Your task to perform on an android device: What's on my calendar today? Image 0: 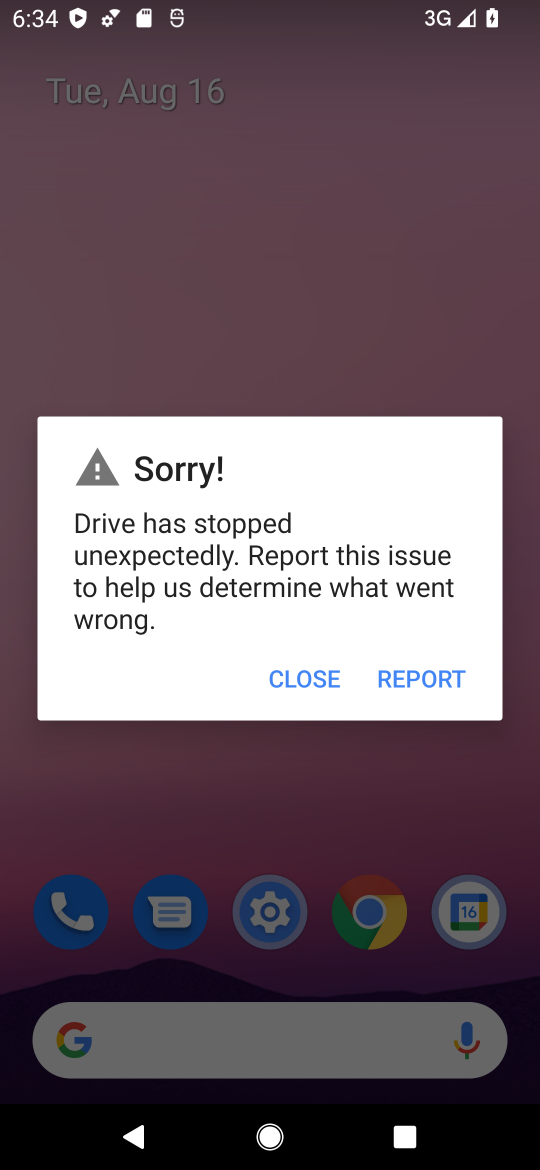
Step 0: press home button
Your task to perform on an android device: What's on my calendar today? Image 1: 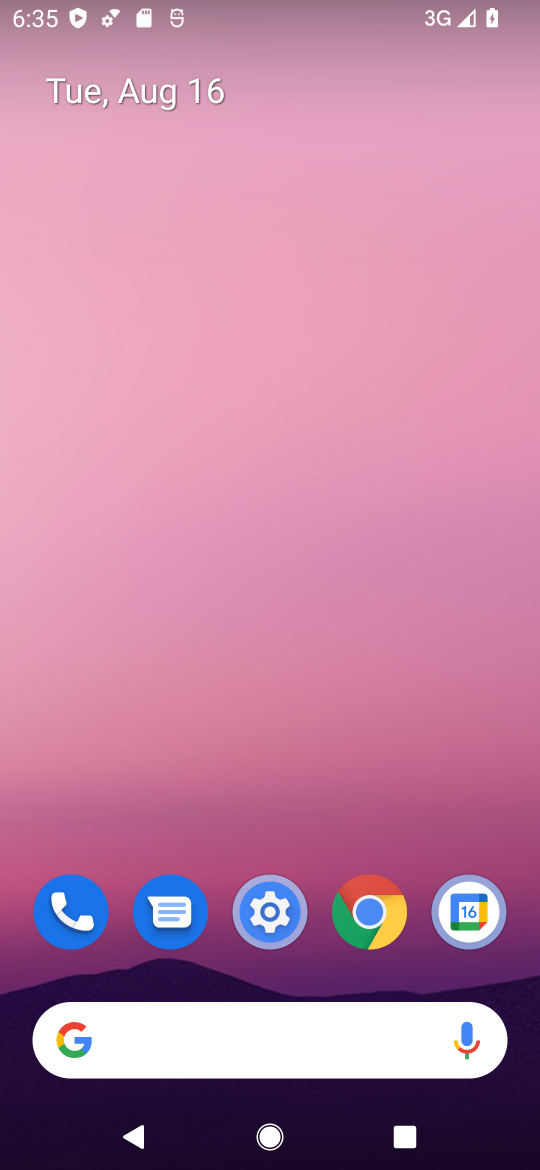
Step 1: click (472, 908)
Your task to perform on an android device: What's on my calendar today? Image 2: 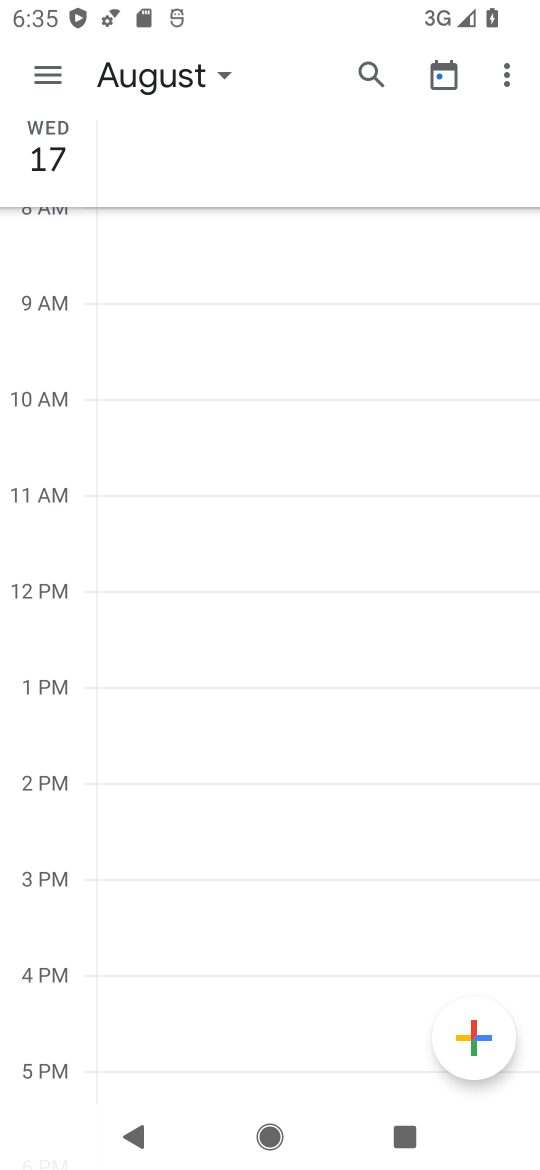
Step 2: click (229, 67)
Your task to perform on an android device: What's on my calendar today? Image 3: 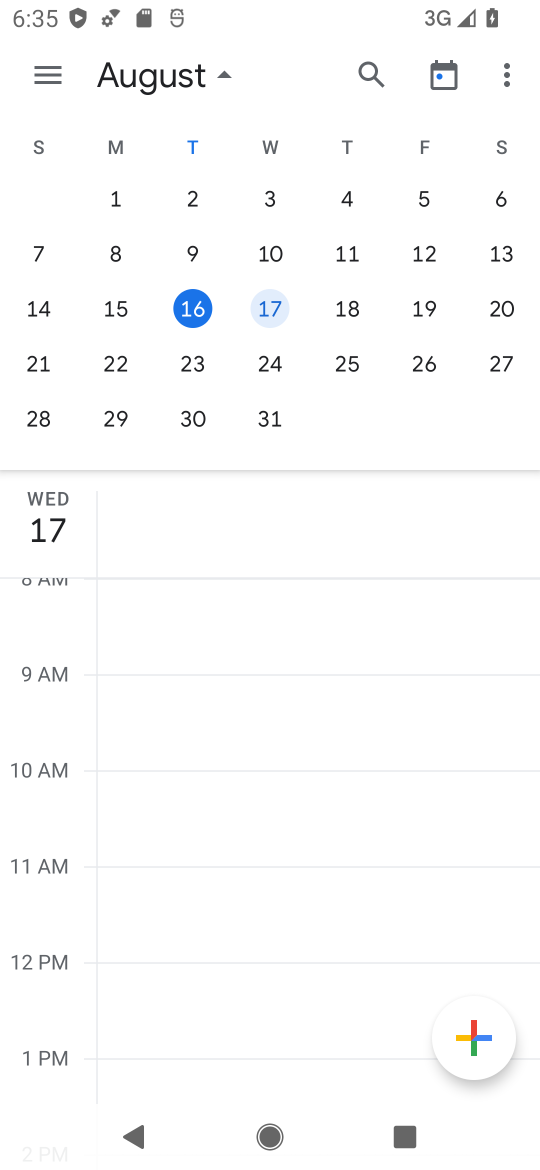
Step 3: click (193, 312)
Your task to perform on an android device: What's on my calendar today? Image 4: 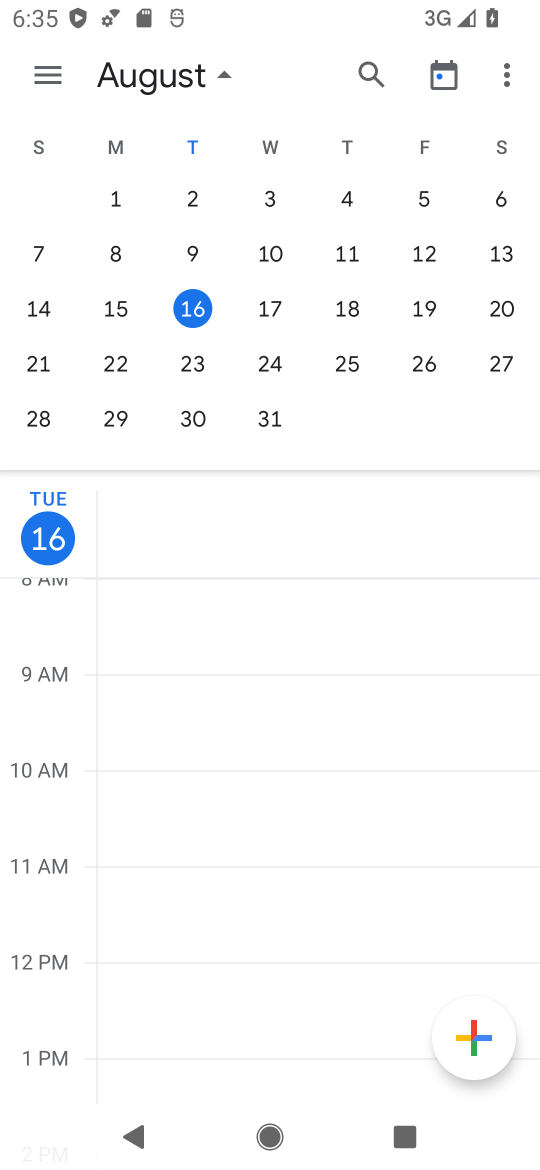
Step 4: task complete